Your task to perform on an android device: Go to accessibility settings Image 0: 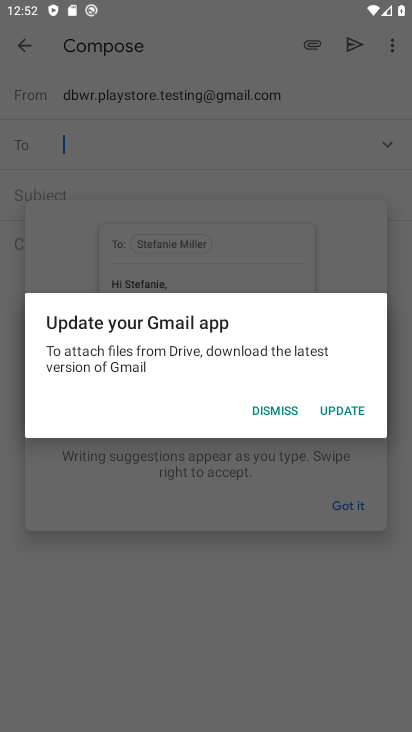
Step 0: click (283, 410)
Your task to perform on an android device: Go to accessibility settings Image 1: 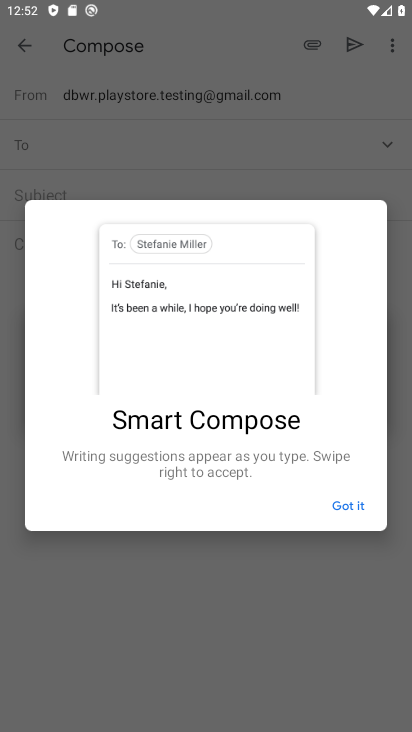
Step 1: click (337, 501)
Your task to perform on an android device: Go to accessibility settings Image 2: 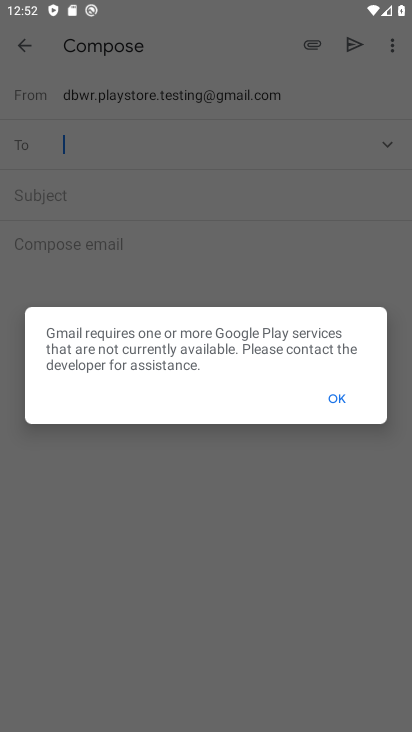
Step 2: press home button
Your task to perform on an android device: Go to accessibility settings Image 3: 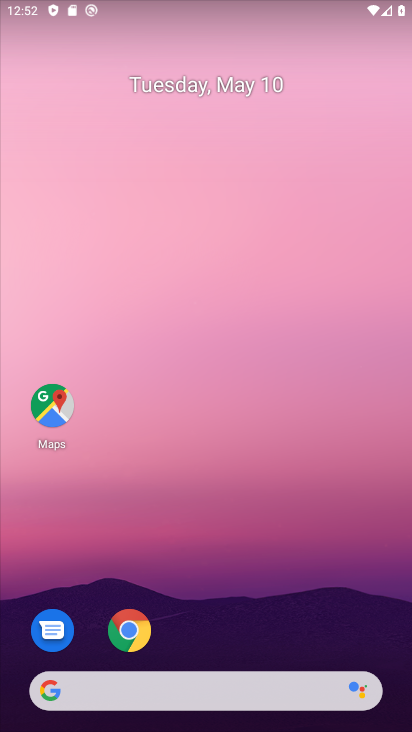
Step 3: drag from (202, 655) to (140, 6)
Your task to perform on an android device: Go to accessibility settings Image 4: 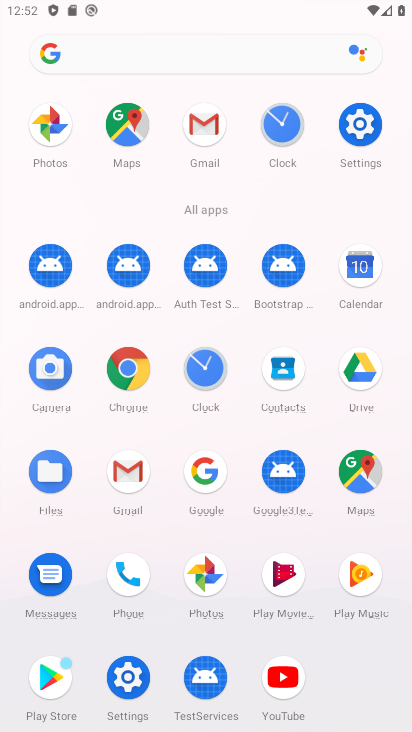
Step 4: click (354, 110)
Your task to perform on an android device: Go to accessibility settings Image 5: 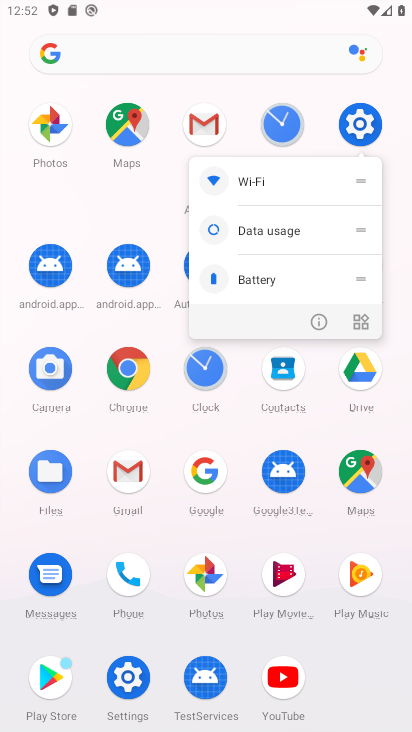
Step 5: click (366, 133)
Your task to perform on an android device: Go to accessibility settings Image 6: 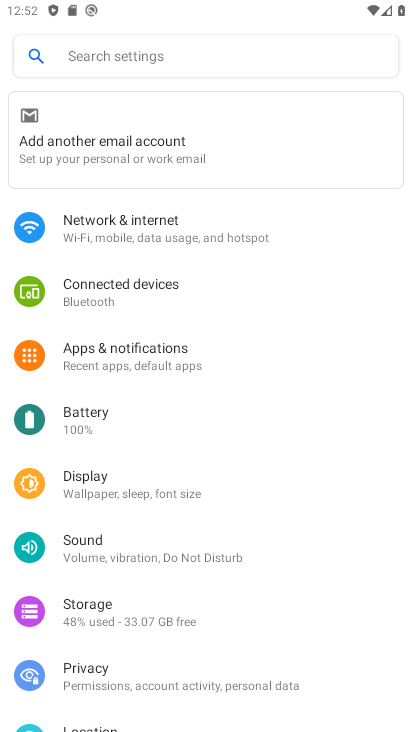
Step 6: drag from (278, 566) to (209, 69)
Your task to perform on an android device: Go to accessibility settings Image 7: 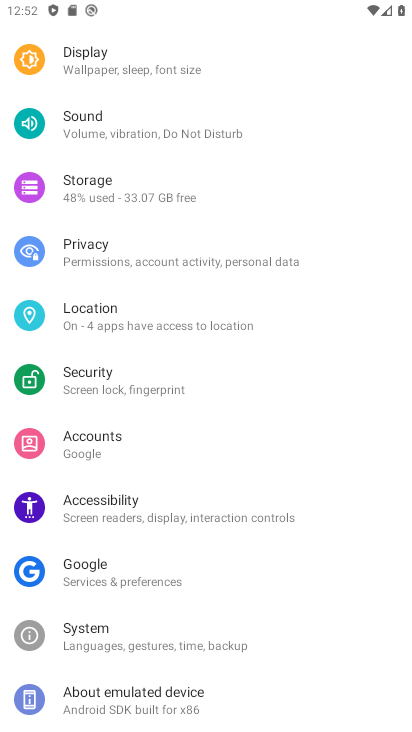
Step 7: click (103, 507)
Your task to perform on an android device: Go to accessibility settings Image 8: 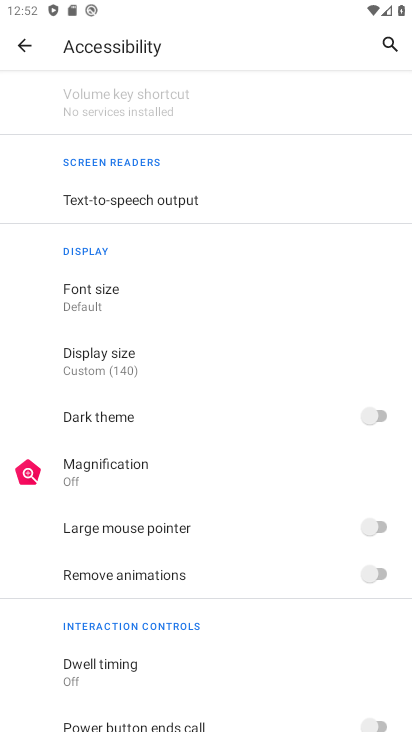
Step 8: task complete